Your task to perform on an android device: move an email to a new category in the gmail app Image 0: 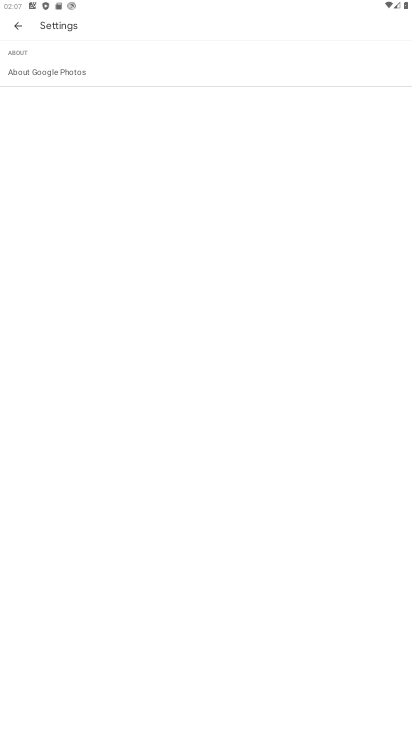
Step 0: press home button
Your task to perform on an android device: move an email to a new category in the gmail app Image 1: 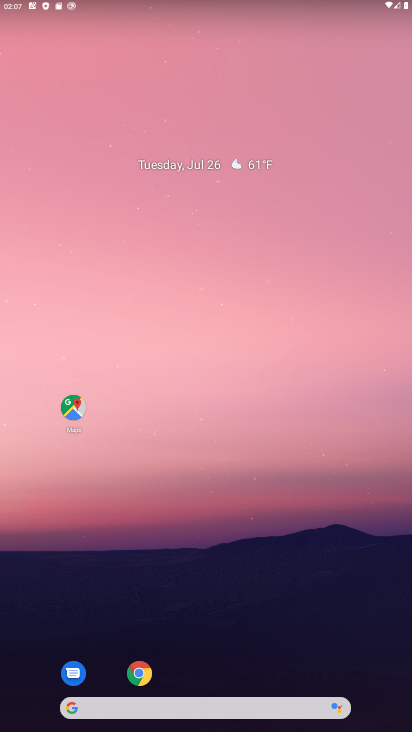
Step 1: drag from (232, 706) to (220, 90)
Your task to perform on an android device: move an email to a new category in the gmail app Image 2: 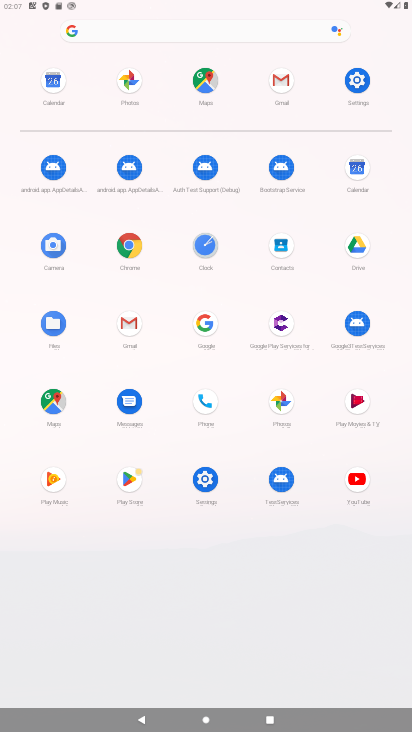
Step 2: click (133, 326)
Your task to perform on an android device: move an email to a new category in the gmail app Image 3: 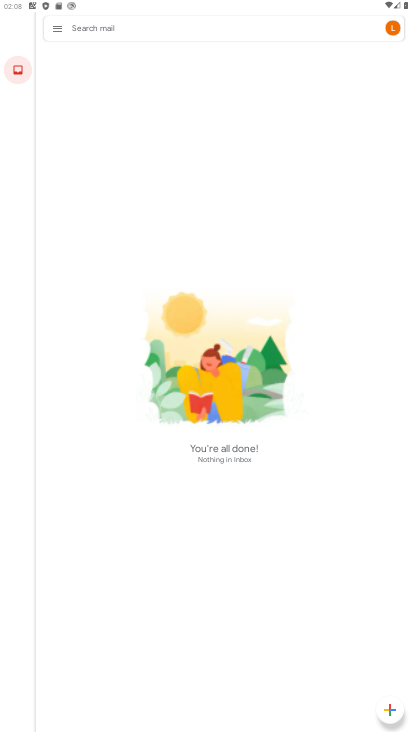
Step 3: task complete